Your task to perform on an android device: Play the last video I watched on Youtube Image 0: 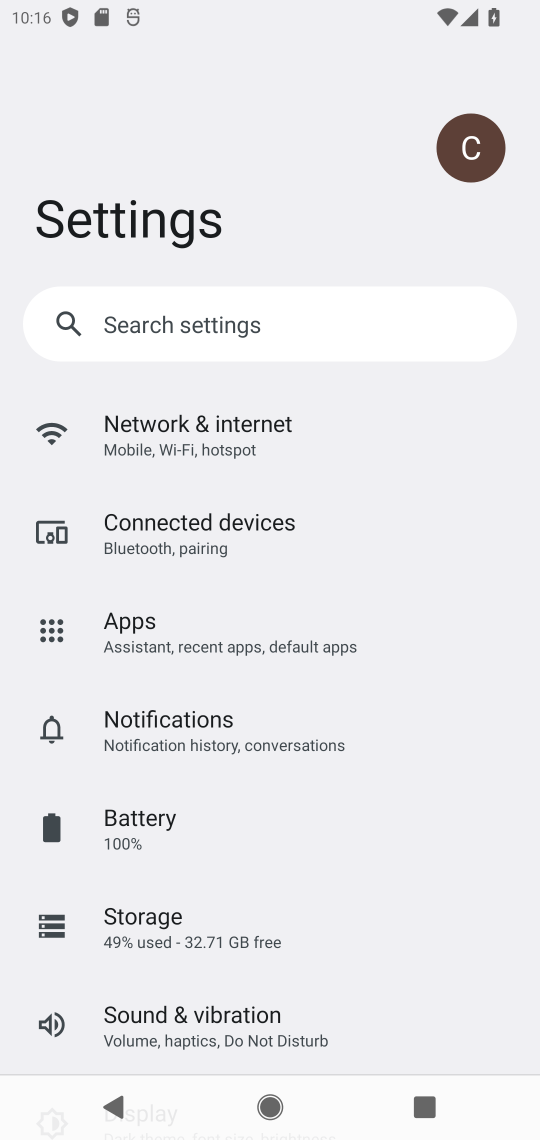
Step 0: press home button
Your task to perform on an android device: Play the last video I watched on Youtube Image 1: 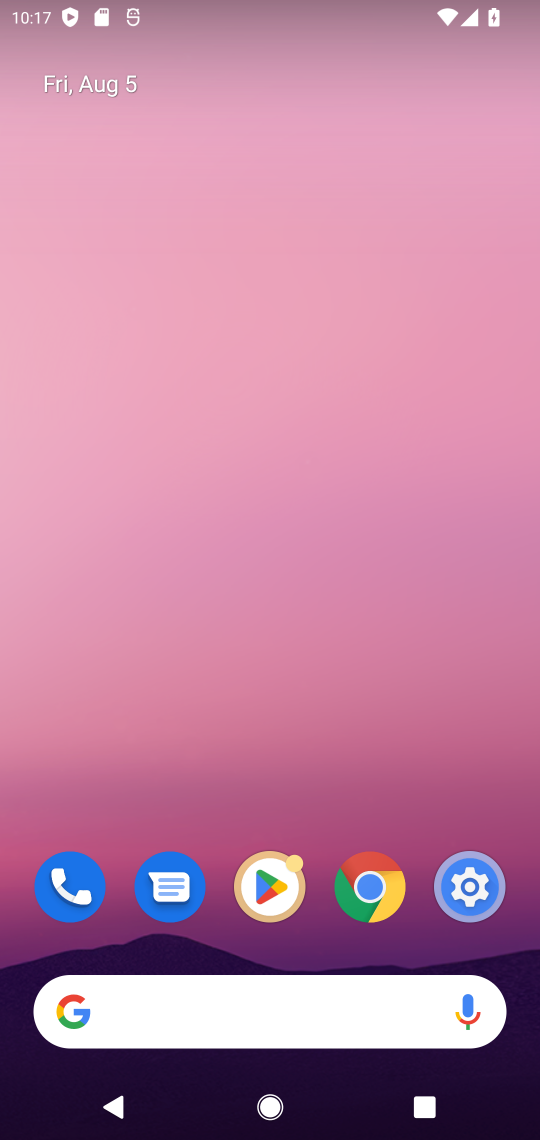
Step 1: drag from (333, 663) to (345, 149)
Your task to perform on an android device: Play the last video I watched on Youtube Image 2: 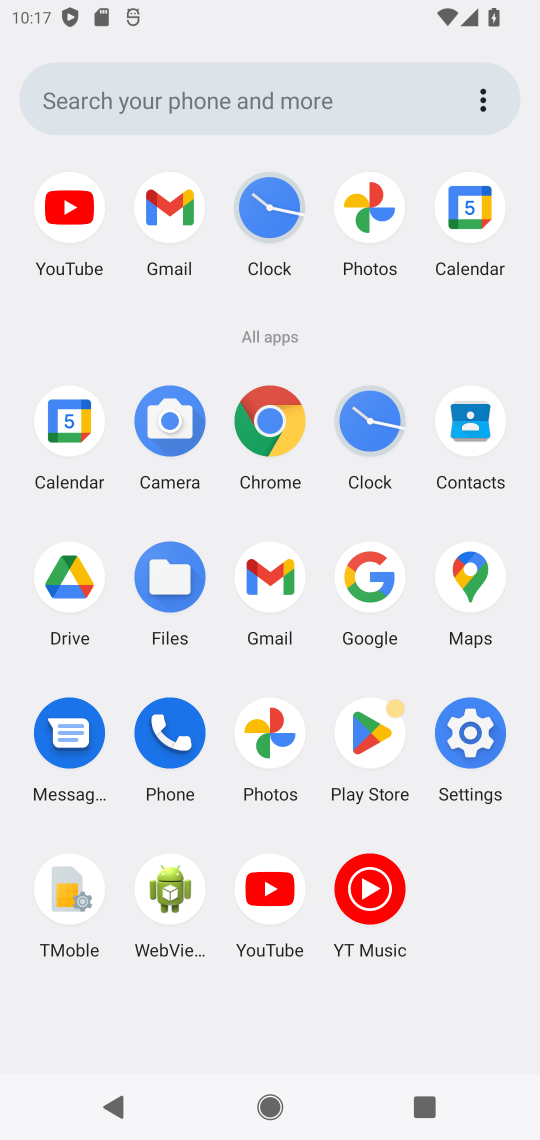
Step 2: click (280, 899)
Your task to perform on an android device: Play the last video I watched on Youtube Image 3: 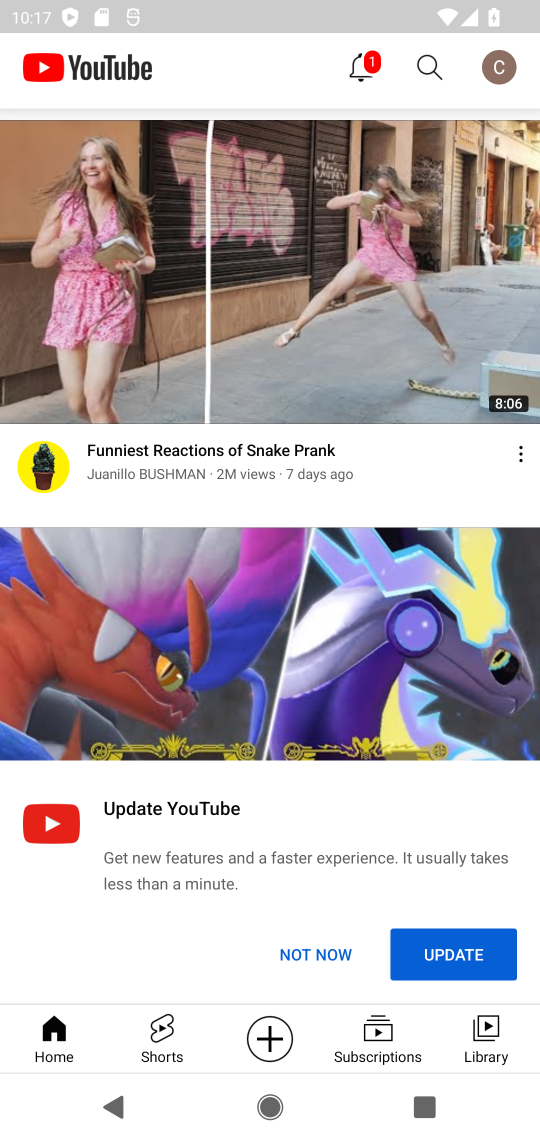
Step 3: click (485, 1057)
Your task to perform on an android device: Play the last video I watched on Youtube Image 4: 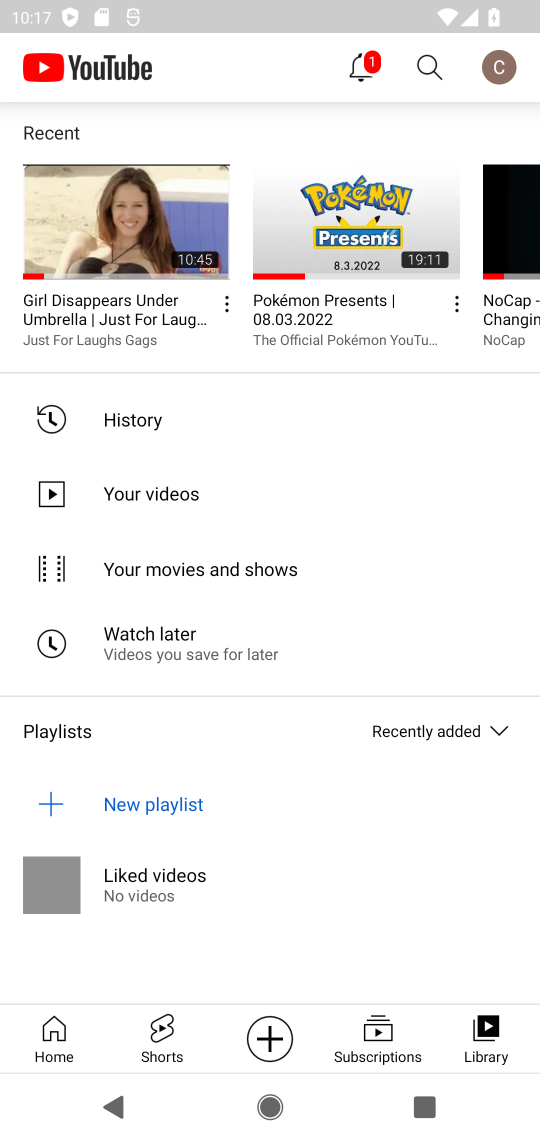
Step 4: click (115, 231)
Your task to perform on an android device: Play the last video I watched on Youtube Image 5: 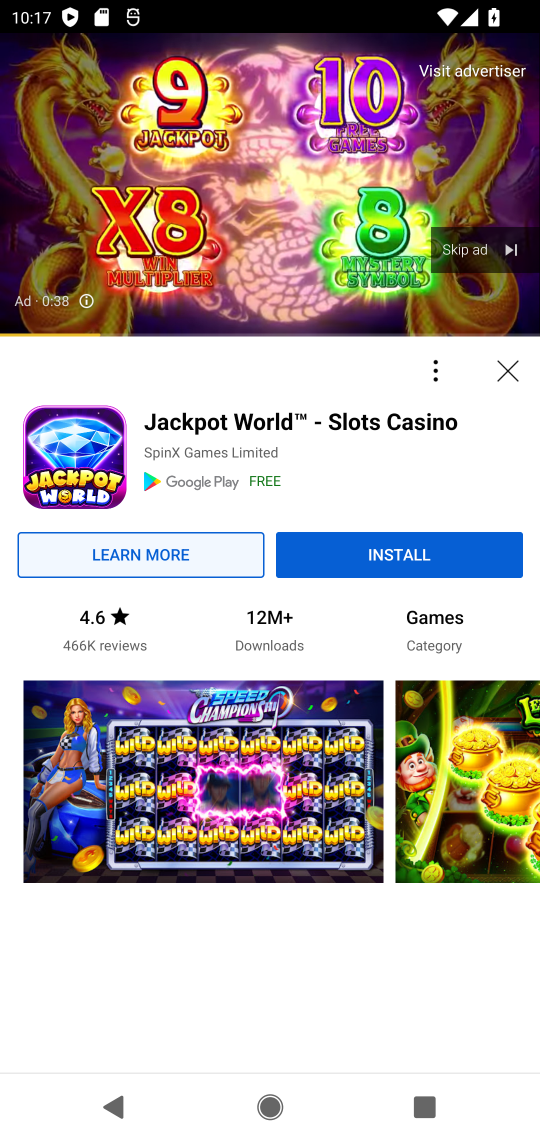
Step 5: click (495, 254)
Your task to perform on an android device: Play the last video I watched on Youtube Image 6: 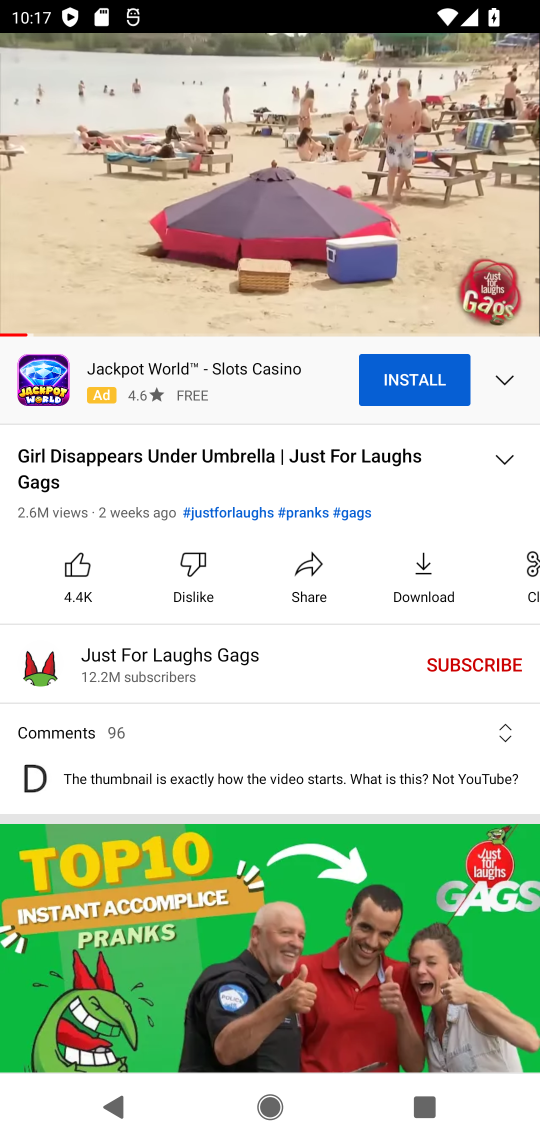
Step 6: task complete